Your task to perform on an android device: Open Chrome and go to the settings page Image 0: 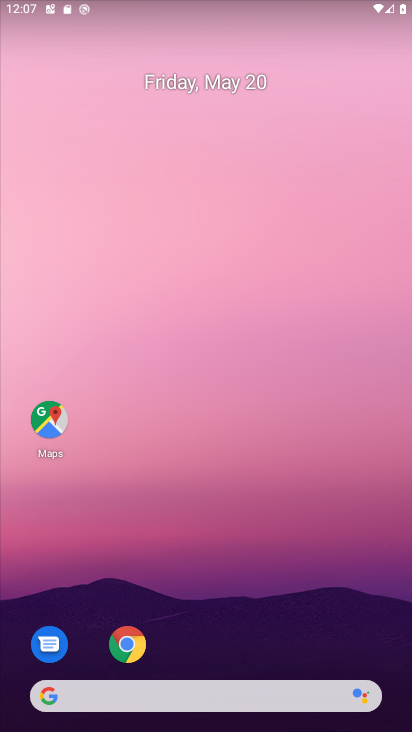
Step 0: click (125, 647)
Your task to perform on an android device: Open Chrome and go to the settings page Image 1: 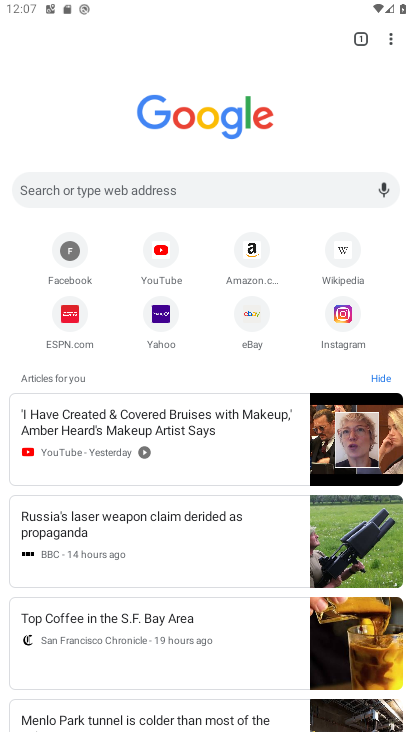
Step 1: click (391, 35)
Your task to perform on an android device: Open Chrome and go to the settings page Image 2: 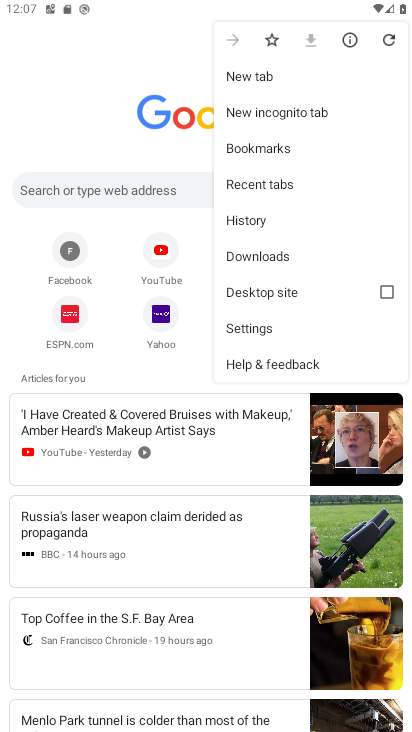
Step 2: click (240, 331)
Your task to perform on an android device: Open Chrome and go to the settings page Image 3: 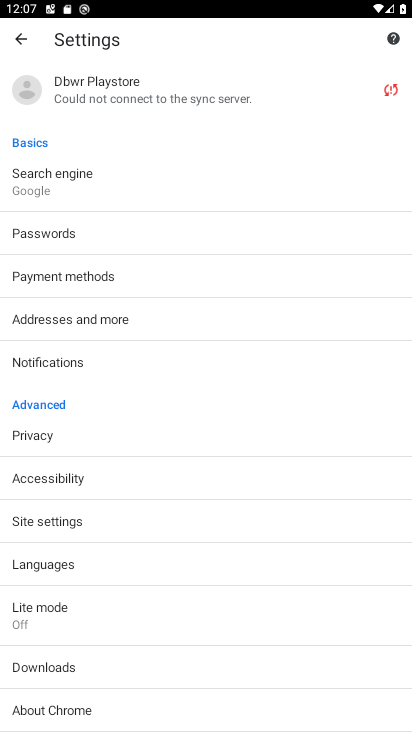
Step 3: task complete